Your task to perform on an android device: Go to Maps Image 0: 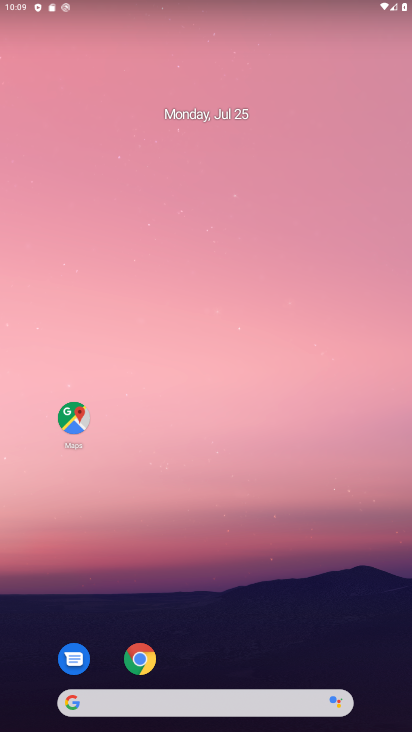
Step 0: drag from (221, 677) to (221, 163)
Your task to perform on an android device: Go to Maps Image 1: 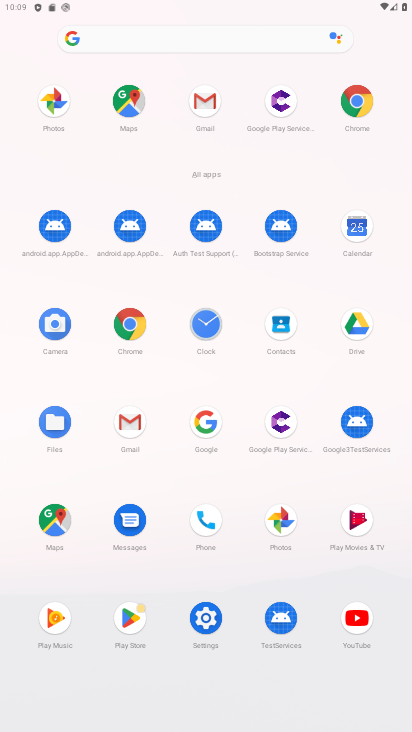
Step 1: click (45, 521)
Your task to perform on an android device: Go to Maps Image 2: 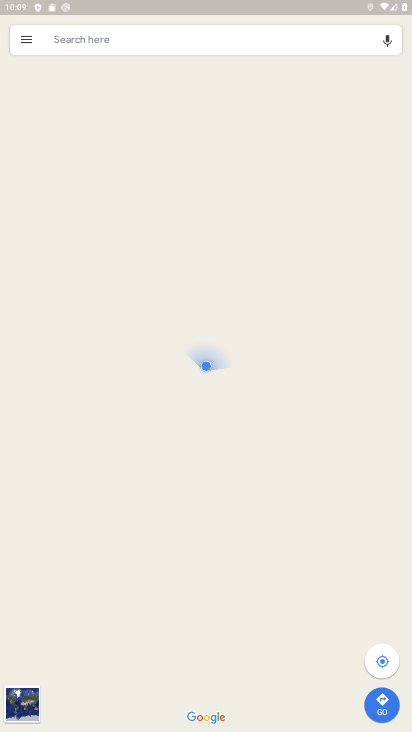
Step 2: press home button
Your task to perform on an android device: Go to Maps Image 3: 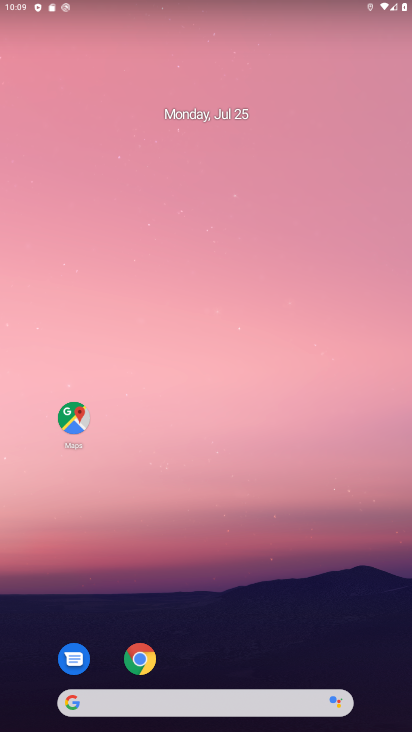
Step 3: drag from (202, 693) to (193, 43)
Your task to perform on an android device: Go to Maps Image 4: 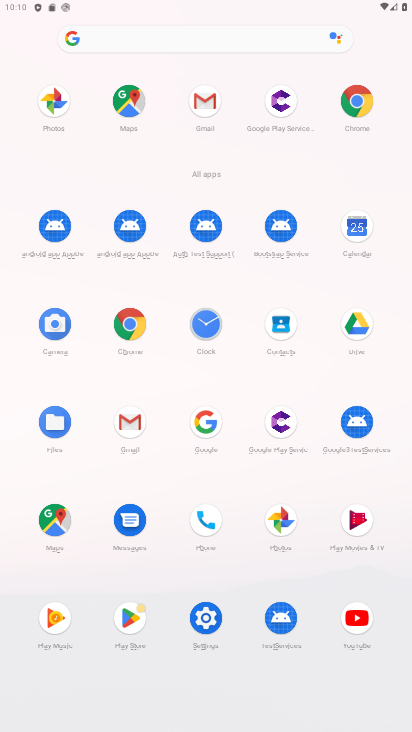
Step 4: click (56, 531)
Your task to perform on an android device: Go to Maps Image 5: 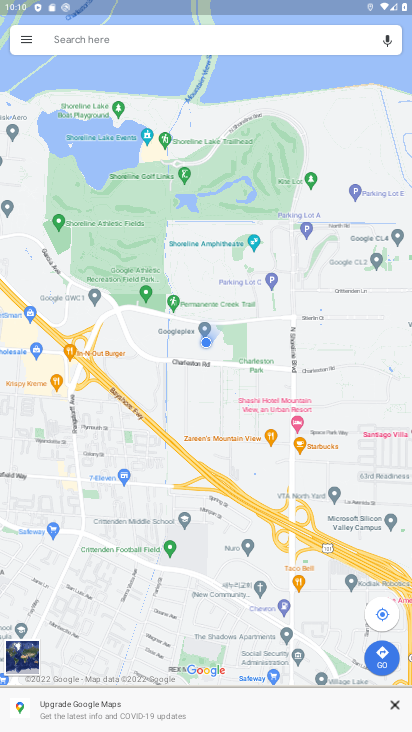
Step 5: task complete